Your task to perform on an android device: Go to internet settings Image 0: 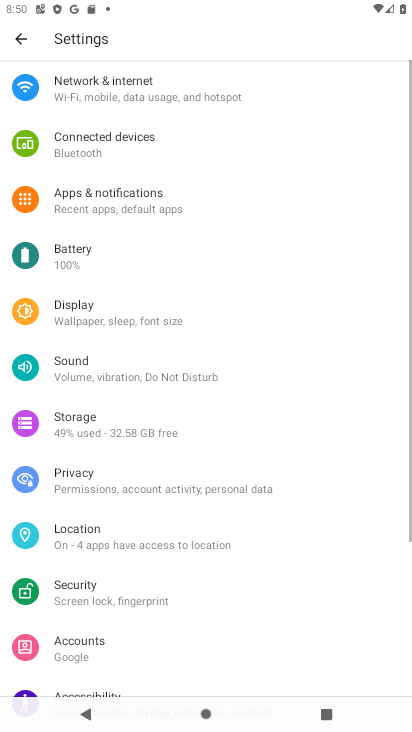
Step 0: click (124, 88)
Your task to perform on an android device: Go to internet settings Image 1: 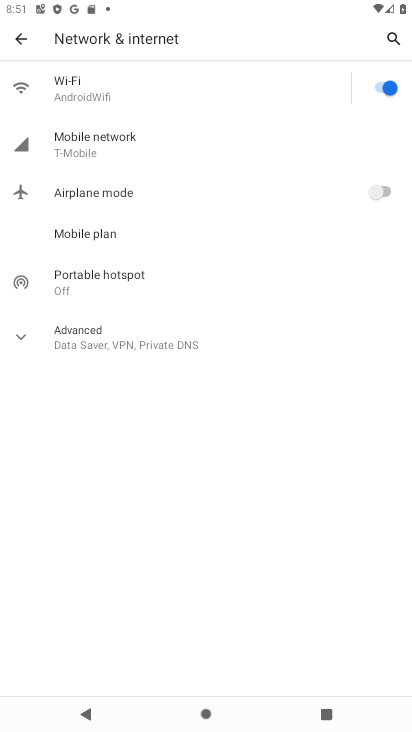
Step 1: task complete